Your task to perform on an android device: Go to battery settings Image 0: 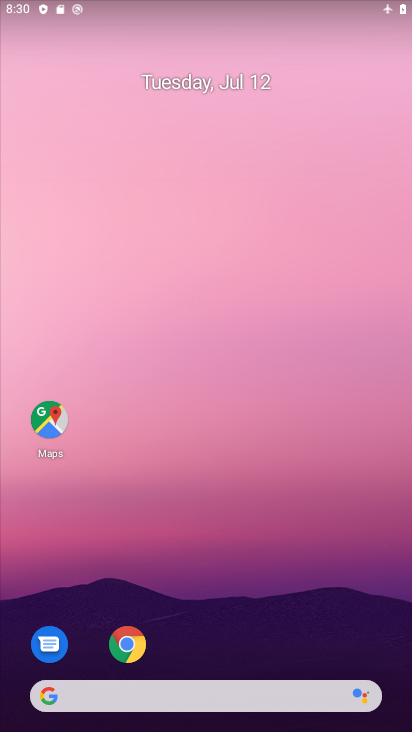
Step 0: drag from (198, 637) to (194, 109)
Your task to perform on an android device: Go to battery settings Image 1: 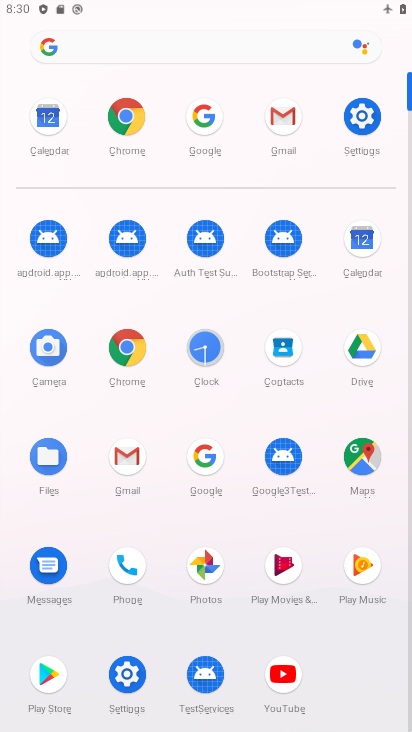
Step 1: click (354, 124)
Your task to perform on an android device: Go to battery settings Image 2: 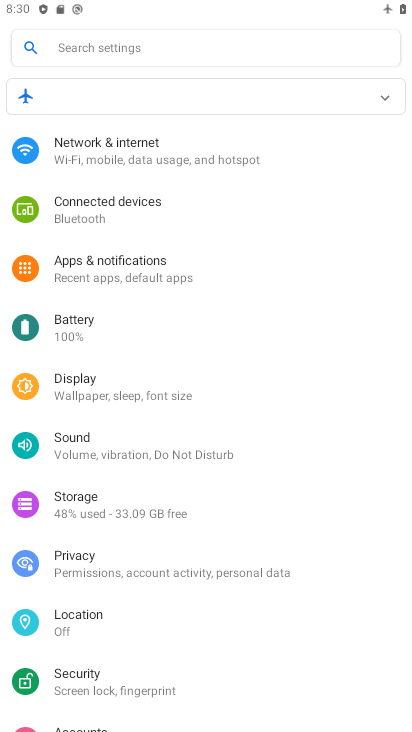
Step 2: click (125, 327)
Your task to perform on an android device: Go to battery settings Image 3: 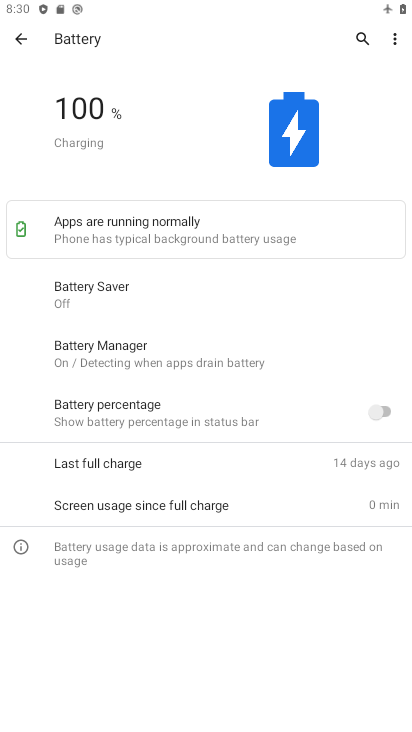
Step 3: task complete